Your task to perform on an android device: Open Reddit.com Image 0: 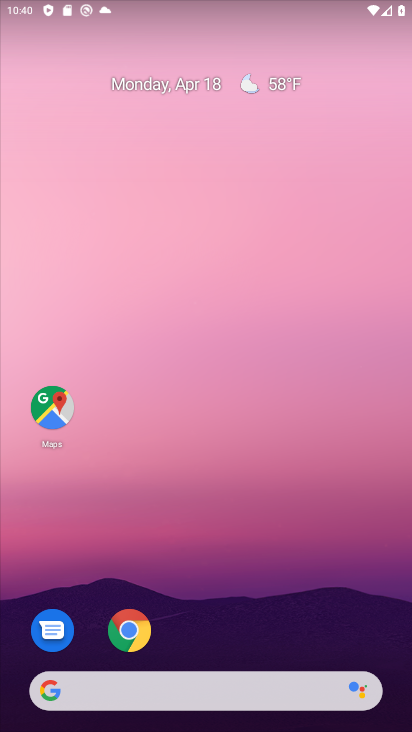
Step 0: click (124, 648)
Your task to perform on an android device: Open Reddit.com Image 1: 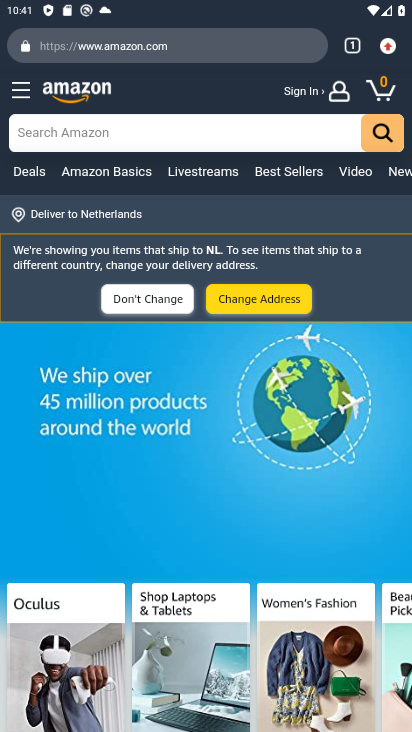
Step 1: click (18, 96)
Your task to perform on an android device: Open Reddit.com Image 2: 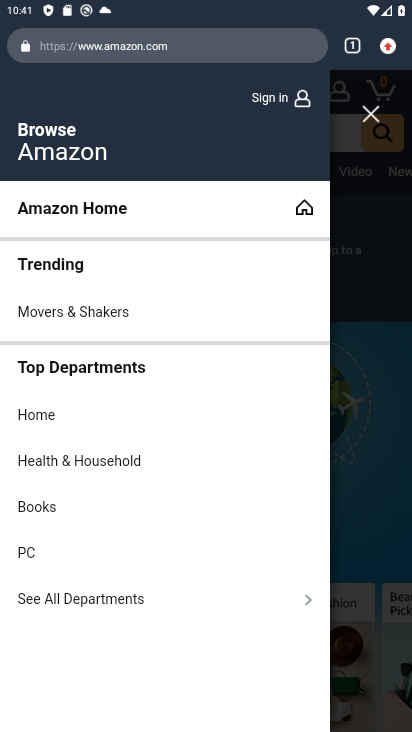
Step 2: click (354, 47)
Your task to perform on an android device: Open Reddit.com Image 3: 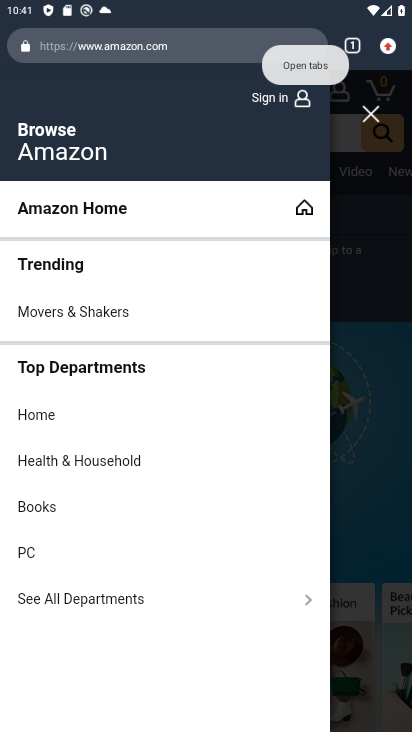
Step 3: click (334, 72)
Your task to perform on an android device: Open Reddit.com Image 4: 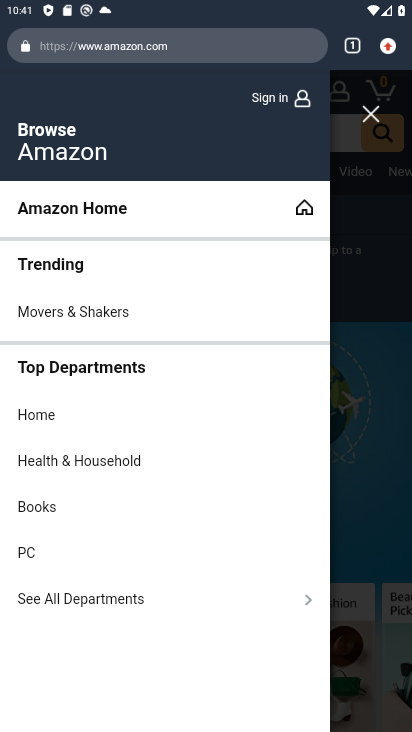
Step 4: click (378, 112)
Your task to perform on an android device: Open Reddit.com Image 5: 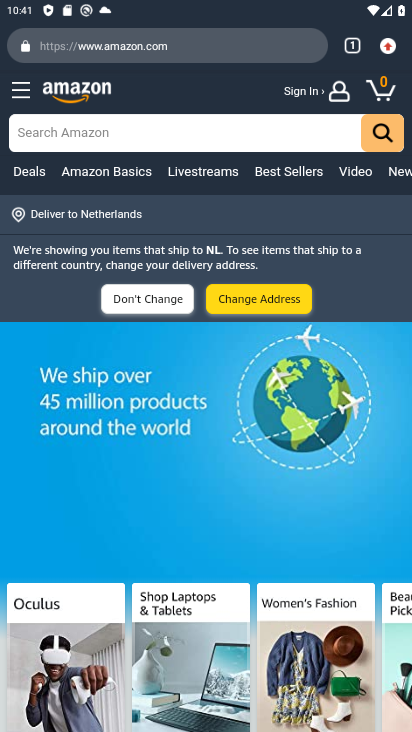
Step 5: click (350, 47)
Your task to perform on an android device: Open Reddit.com Image 6: 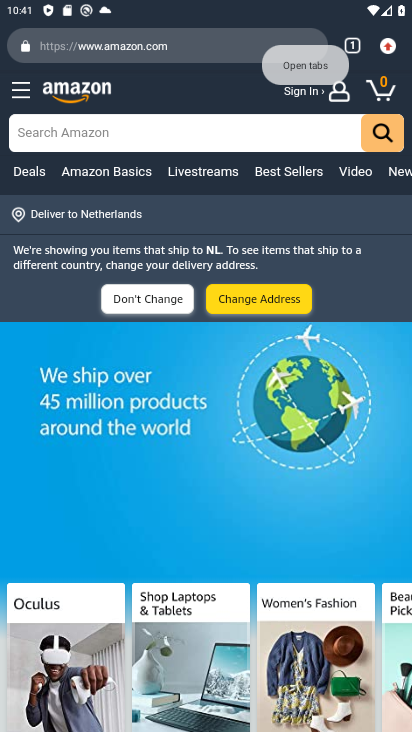
Step 6: click (178, 80)
Your task to perform on an android device: Open Reddit.com Image 7: 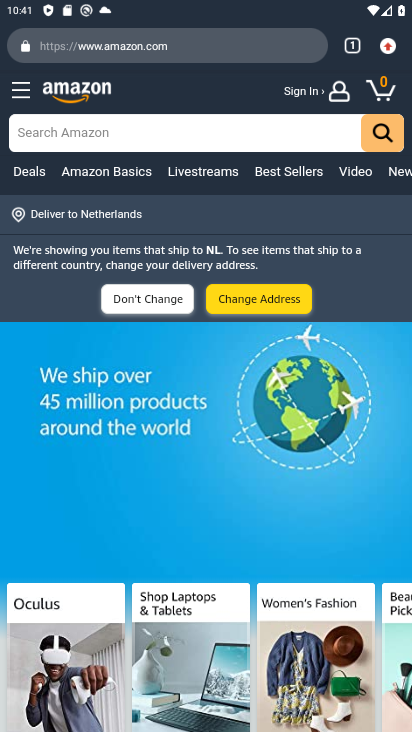
Step 7: click (354, 51)
Your task to perform on an android device: Open Reddit.com Image 8: 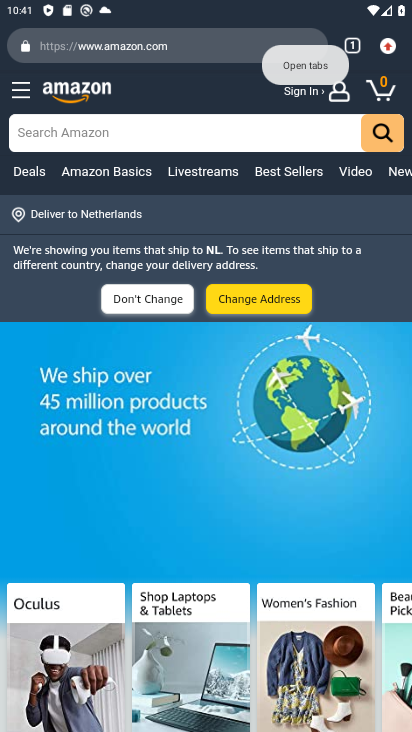
Step 8: click (309, 61)
Your task to perform on an android device: Open Reddit.com Image 9: 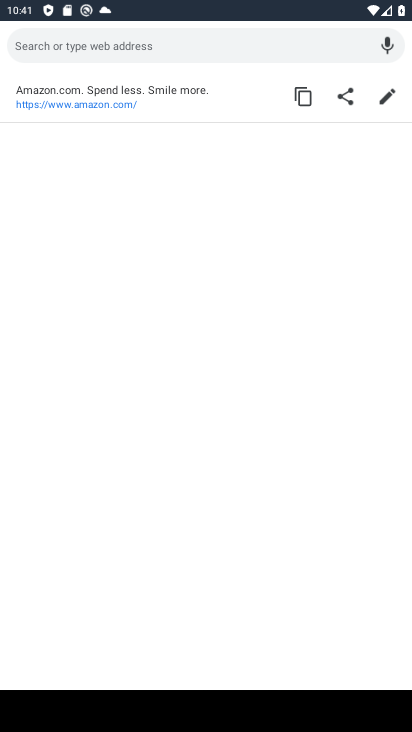
Step 9: type "raddit"
Your task to perform on an android device: Open Reddit.com Image 10: 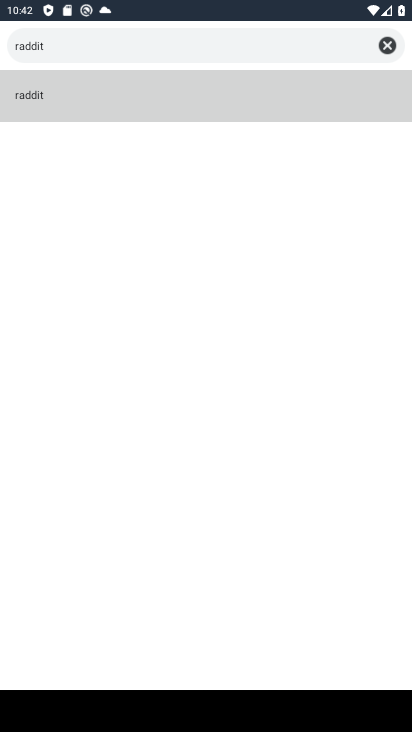
Step 10: click (158, 98)
Your task to perform on an android device: Open Reddit.com Image 11: 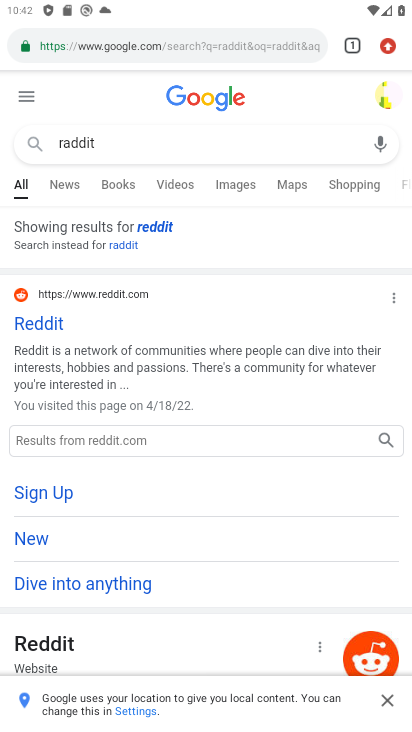
Step 11: click (62, 336)
Your task to perform on an android device: Open Reddit.com Image 12: 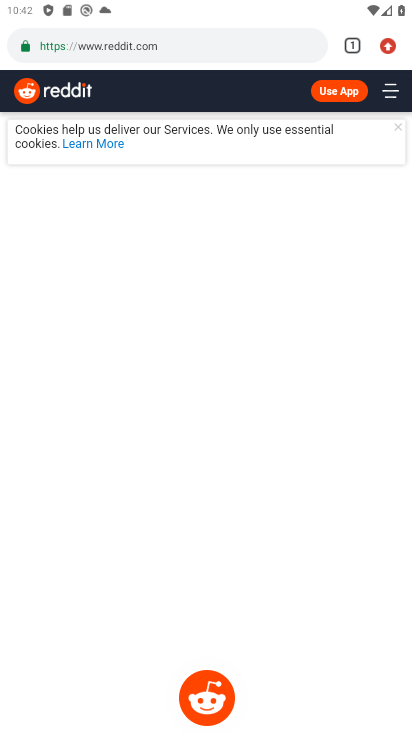
Step 12: task complete